Your task to perform on an android device: Open Amazon Image 0: 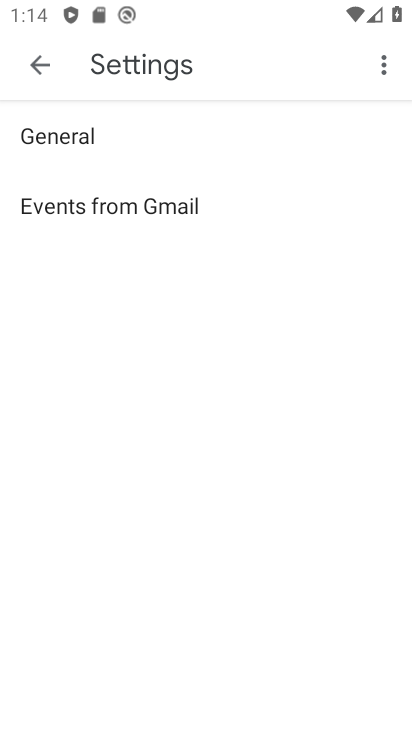
Step 0: press home button
Your task to perform on an android device: Open Amazon Image 1: 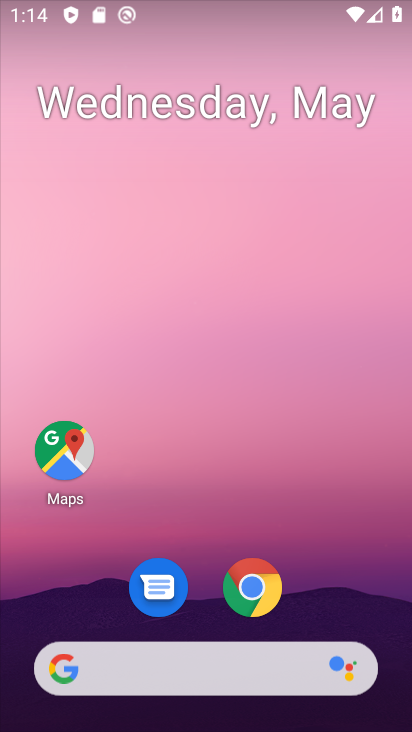
Step 1: click (252, 573)
Your task to perform on an android device: Open Amazon Image 2: 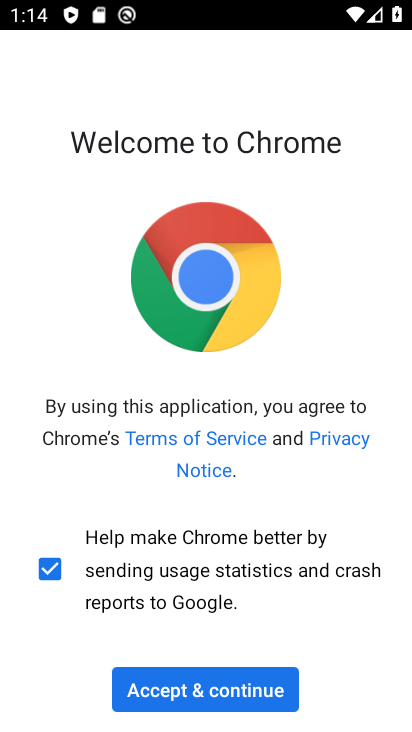
Step 2: click (183, 679)
Your task to perform on an android device: Open Amazon Image 3: 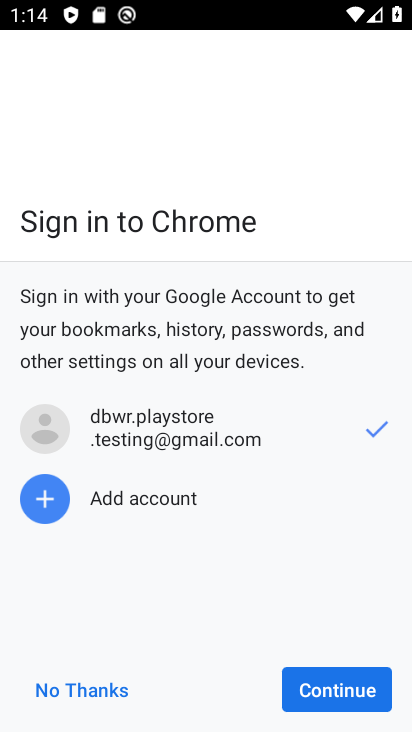
Step 3: click (307, 687)
Your task to perform on an android device: Open Amazon Image 4: 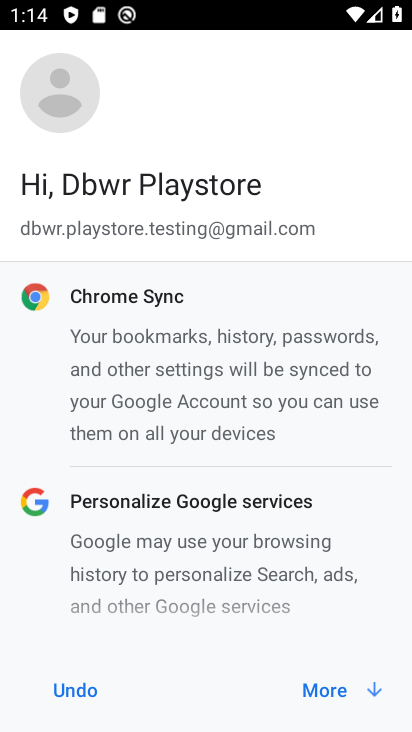
Step 4: click (307, 687)
Your task to perform on an android device: Open Amazon Image 5: 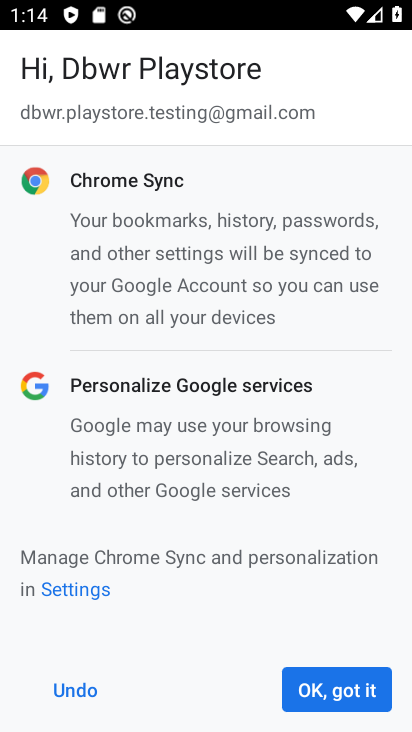
Step 5: click (307, 687)
Your task to perform on an android device: Open Amazon Image 6: 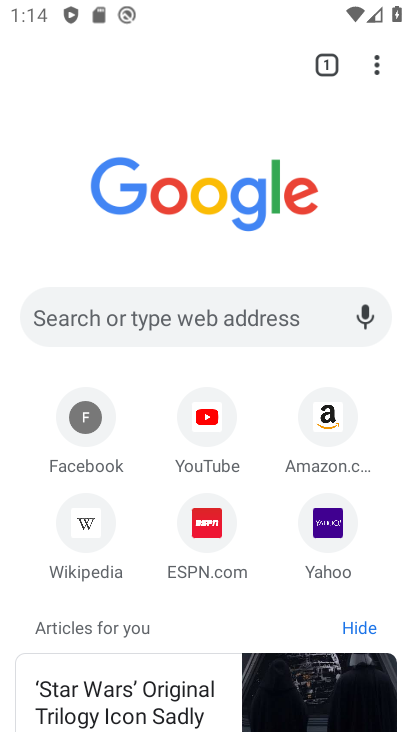
Step 6: click (385, 82)
Your task to perform on an android device: Open Amazon Image 7: 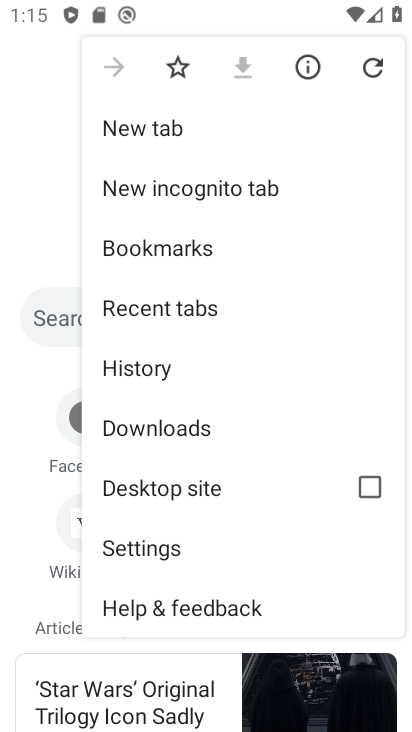
Step 7: click (52, 227)
Your task to perform on an android device: Open Amazon Image 8: 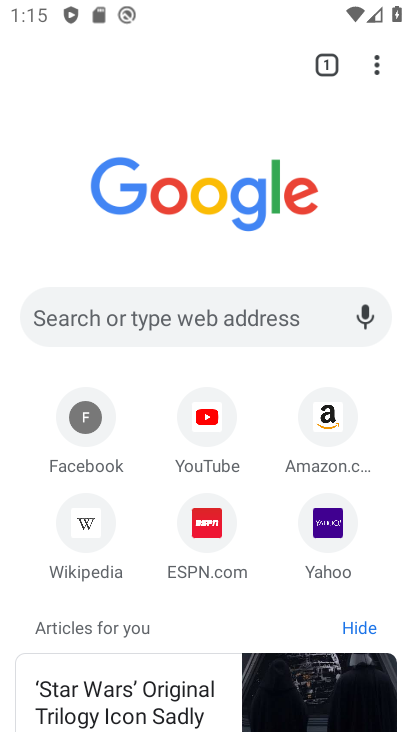
Step 8: click (322, 420)
Your task to perform on an android device: Open Amazon Image 9: 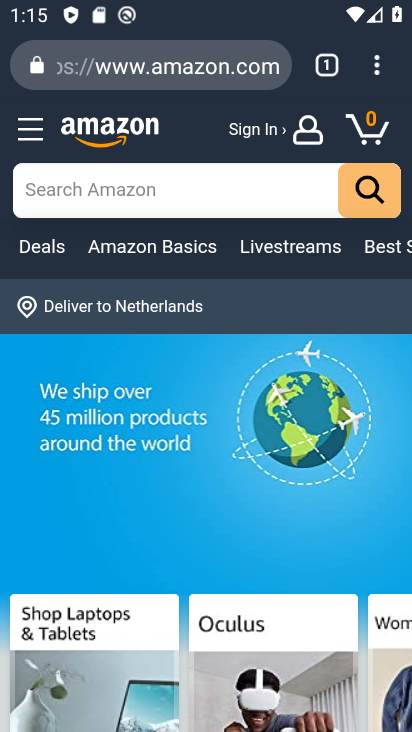
Step 9: task complete